Your task to perform on an android device: Open calendar and show me the first week of next month Image 0: 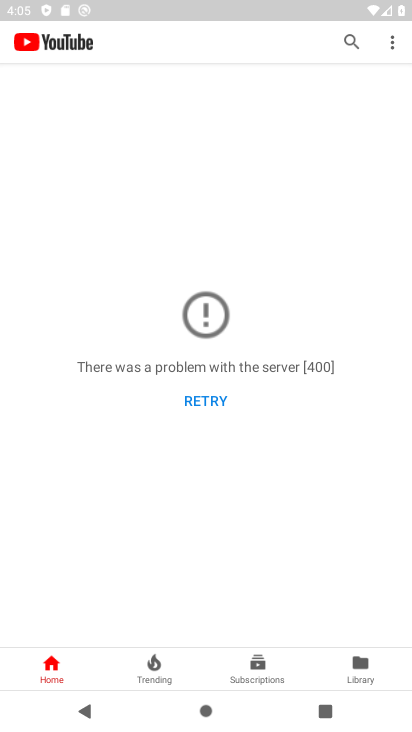
Step 0: press back button
Your task to perform on an android device: Open calendar and show me the first week of next month Image 1: 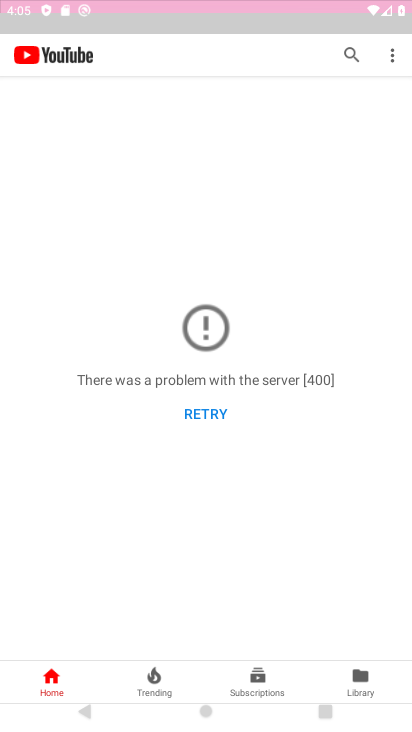
Step 1: press back button
Your task to perform on an android device: Open calendar and show me the first week of next month Image 2: 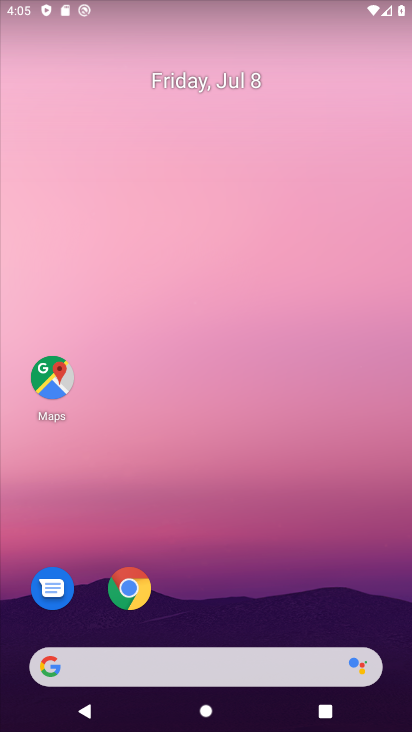
Step 2: drag from (320, 547) to (298, 120)
Your task to perform on an android device: Open calendar and show me the first week of next month Image 3: 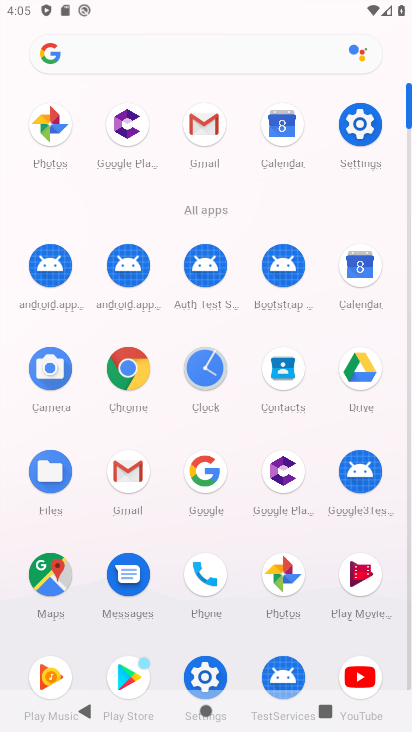
Step 3: click (372, 271)
Your task to perform on an android device: Open calendar and show me the first week of next month Image 4: 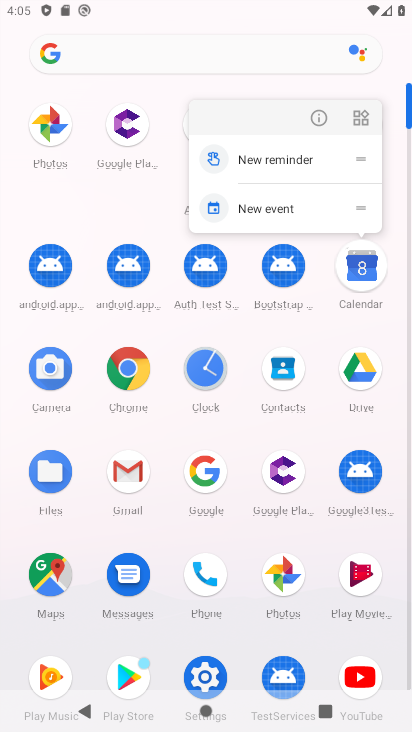
Step 4: click (368, 273)
Your task to perform on an android device: Open calendar and show me the first week of next month Image 5: 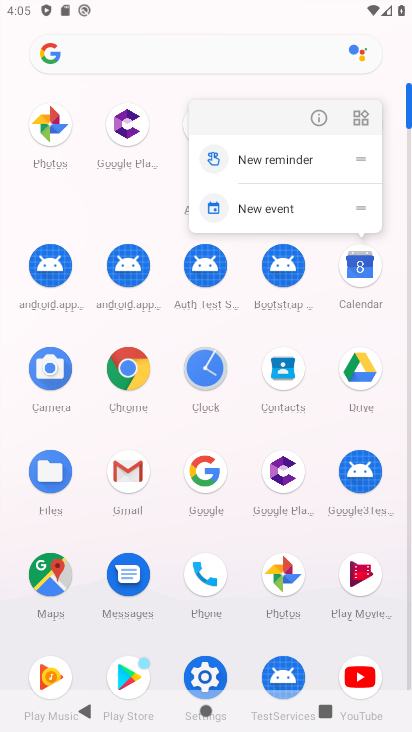
Step 5: click (368, 274)
Your task to perform on an android device: Open calendar and show me the first week of next month Image 6: 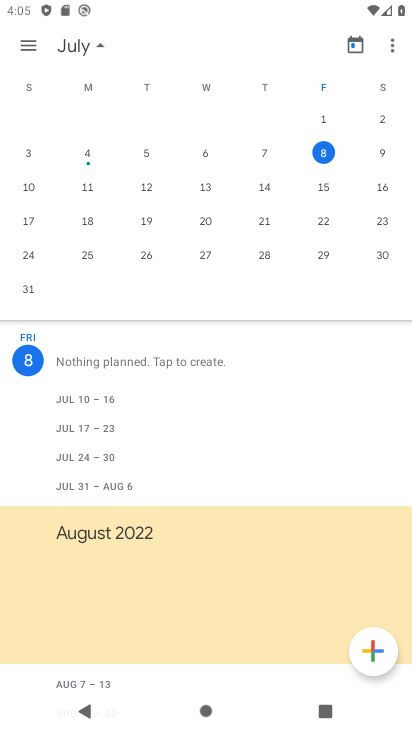
Step 6: click (364, 271)
Your task to perform on an android device: Open calendar and show me the first week of next month Image 7: 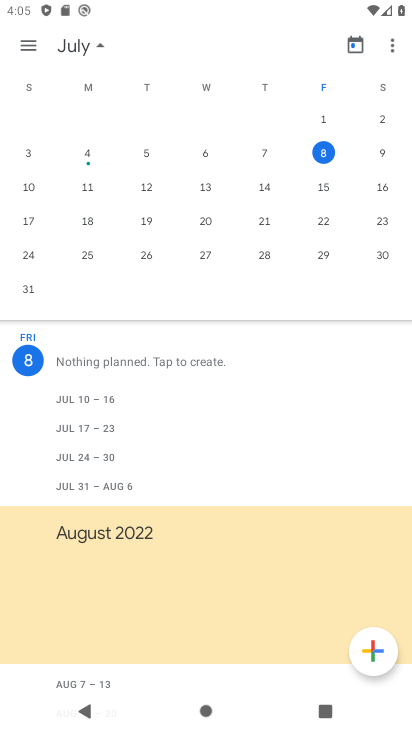
Step 7: drag from (128, 579) to (133, 545)
Your task to perform on an android device: Open calendar and show me the first week of next month Image 8: 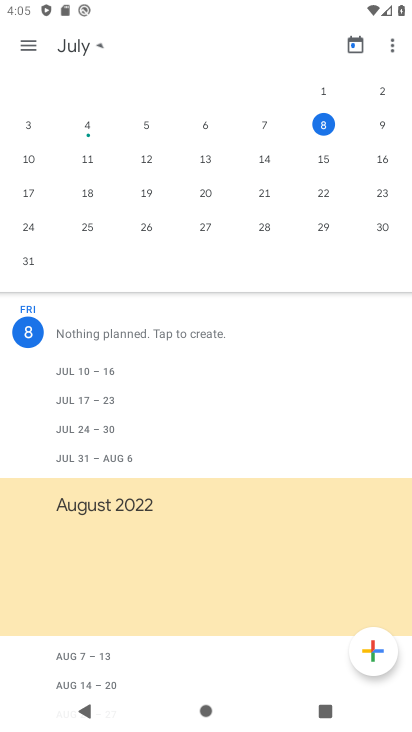
Step 8: click (131, 550)
Your task to perform on an android device: Open calendar and show me the first week of next month Image 9: 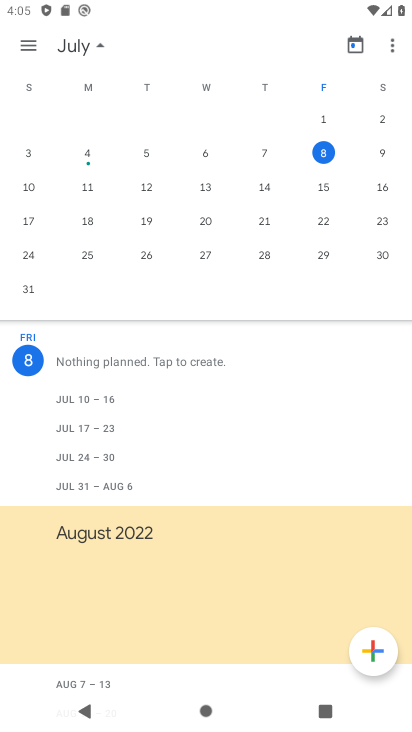
Step 9: click (128, 554)
Your task to perform on an android device: Open calendar and show me the first week of next month Image 10: 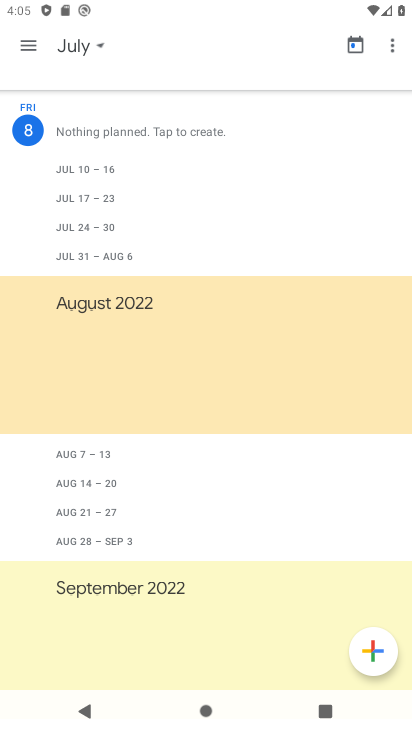
Step 10: click (128, 554)
Your task to perform on an android device: Open calendar and show me the first week of next month Image 11: 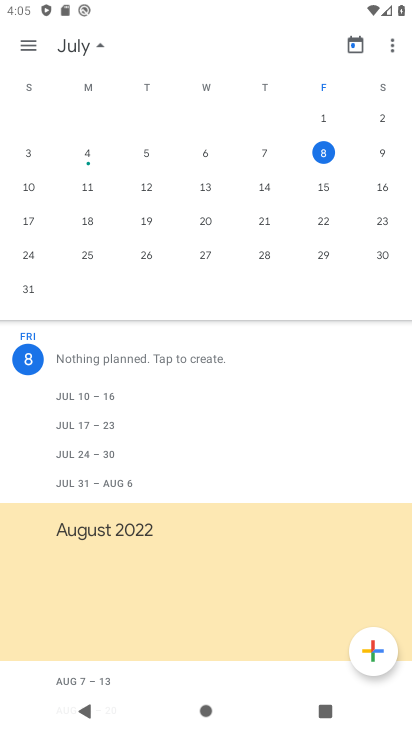
Step 11: drag from (116, 591) to (237, 109)
Your task to perform on an android device: Open calendar and show me the first week of next month Image 12: 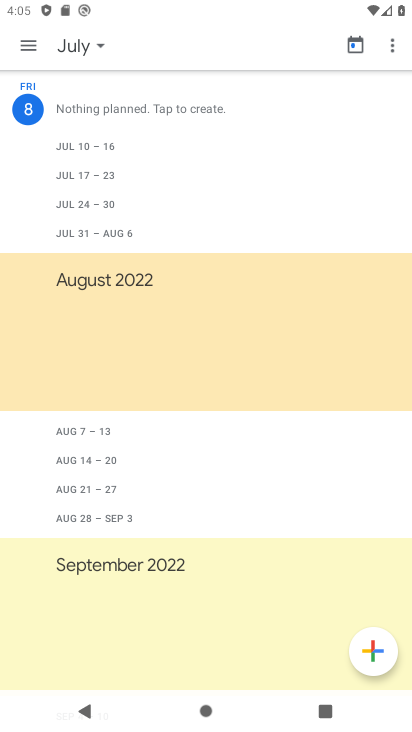
Step 12: click (94, 549)
Your task to perform on an android device: Open calendar and show me the first week of next month Image 13: 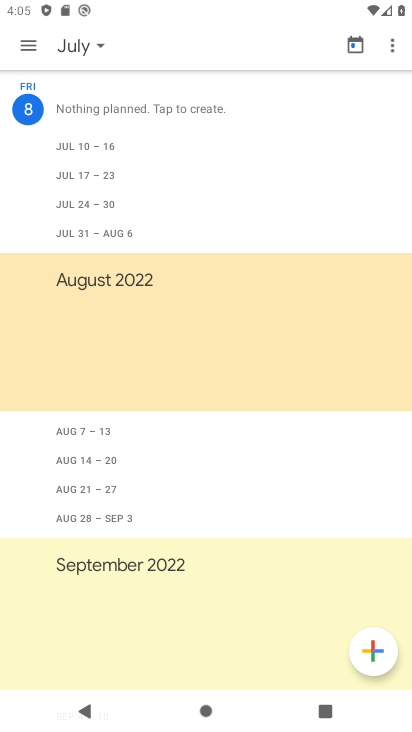
Step 13: click (111, 435)
Your task to perform on an android device: Open calendar and show me the first week of next month Image 14: 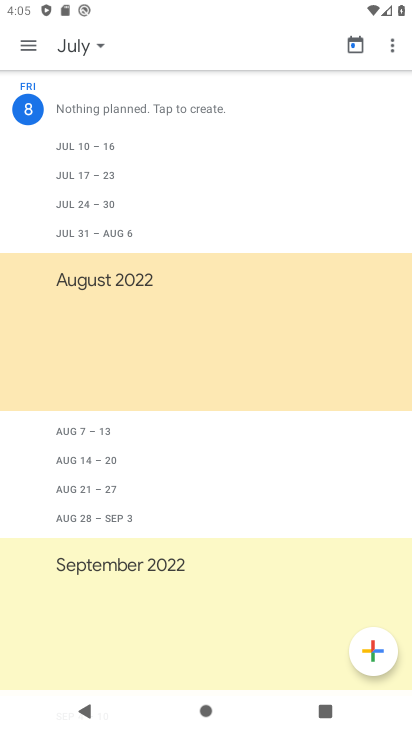
Step 14: click (108, 434)
Your task to perform on an android device: Open calendar and show me the first week of next month Image 15: 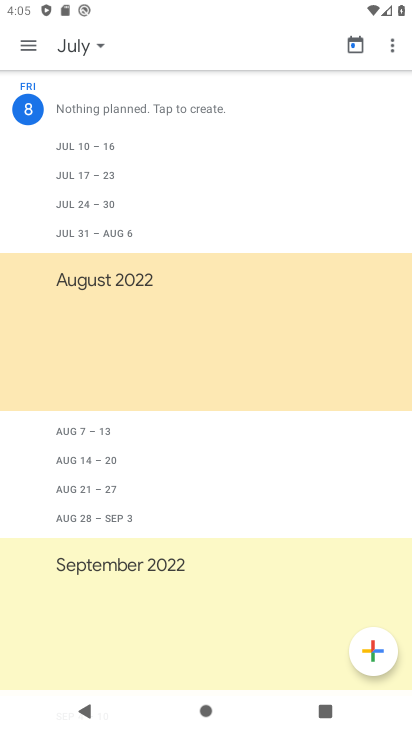
Step 15: click (101, 436)
Your task to perform on an android device: Open calendar and show me the first week of next month Image 16: 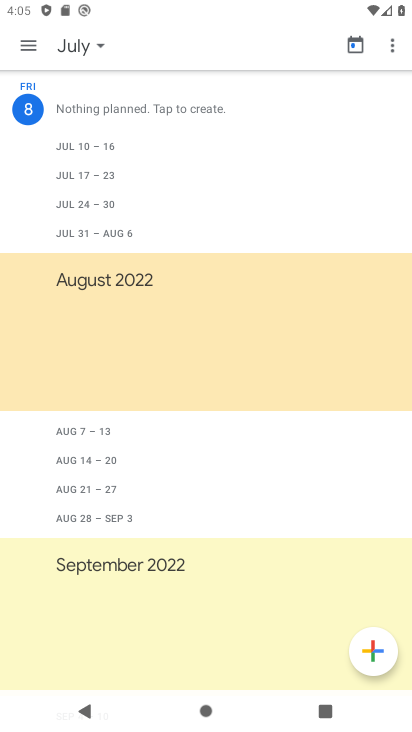
Step 16: click (81, 430)
Your task to perform on an android device: Open calendar and show me the first week of next month Image 17: 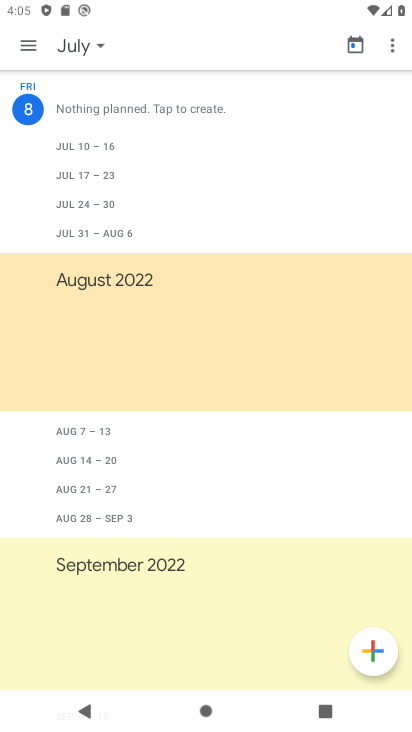
Step 17: click (80, 430)
Your task to perform on an android device: Open calendar and show me the first week of next month Image 18: 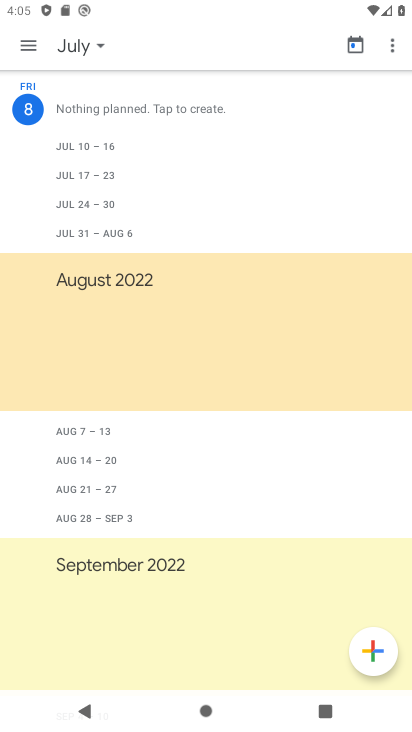
Step 18: click (79, 429)
Your task to perform on an android device: Open calendar and show me the first week of next month Image 19: 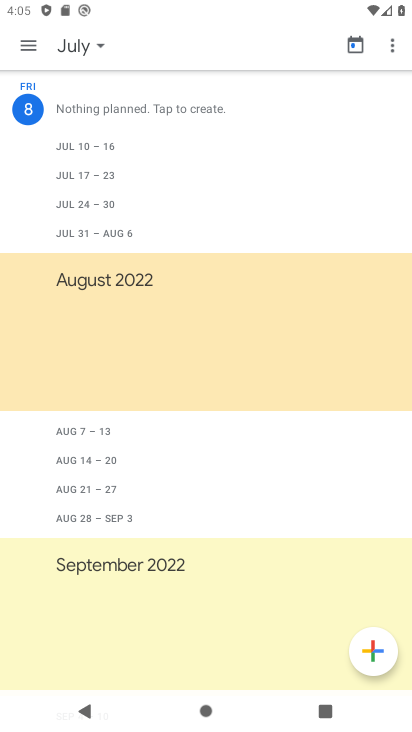
Step 19: click (79, 429)
Your task to perform on an android device: Open calendar and show me the first week of next month Image 20: 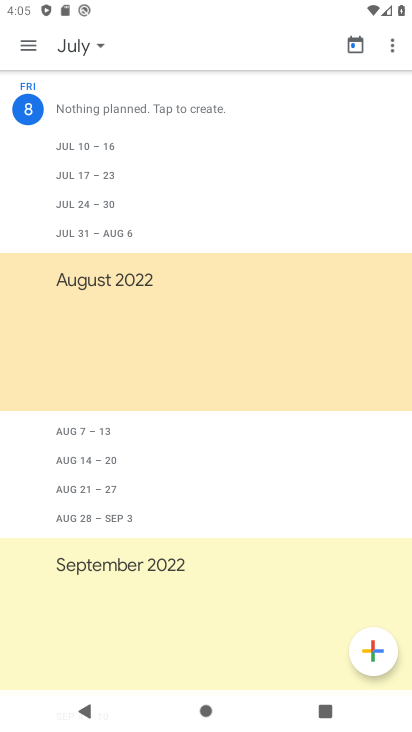
Step 20: click (75, 425)
Your task to perform on an android device: Open calendar and show me the first week of next month Image 21: 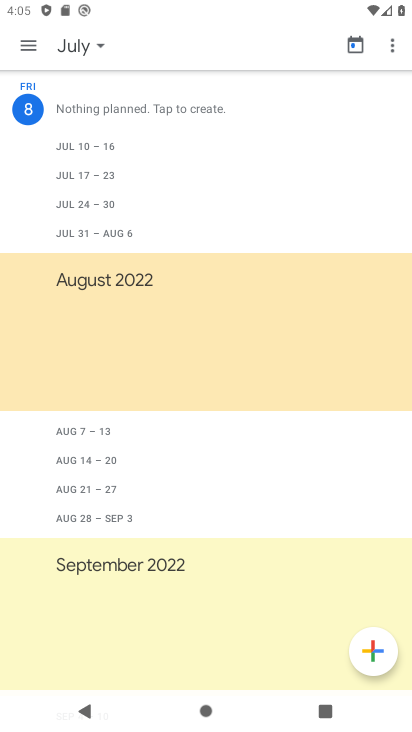
Step 21: click (78, 419)
Your task to perform on an android device: Open calendar and show me the first week of next month Image 22: 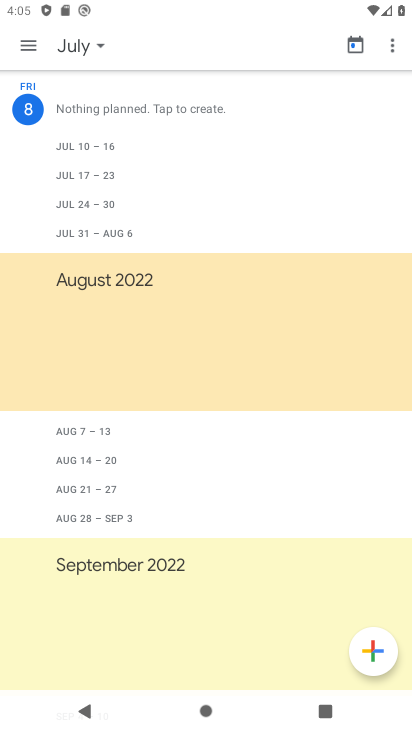
Step 22: click (78, 419)
Your task to perform on an android device: Open calendar and show me the first week of next month Image 23: 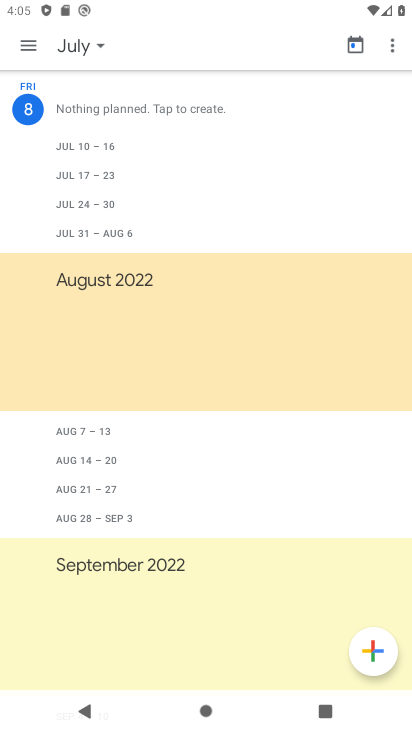
Step 23: click (80, 417)
Your task to perform on an android device: Open calendar and show me the first week of next month Image 24: 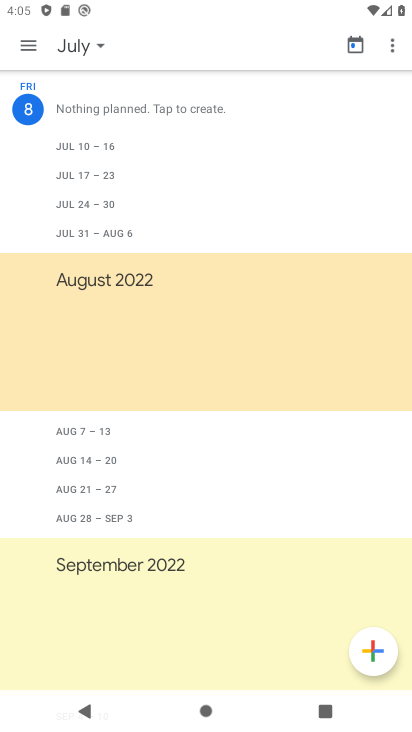
Step 24: click (80, 419)
Your task to perform on an android device: Open calendar and show me the first week of next month Image 25: 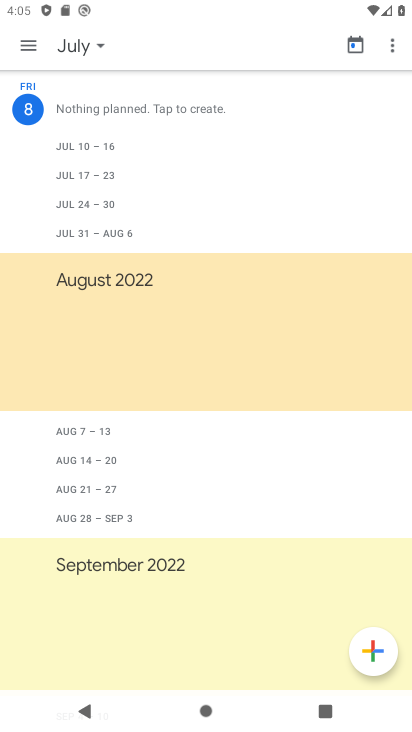
Step 25: click (80, 419)
Your task to perform on an android device: Open calendar and show me the first week of next month Image 26: 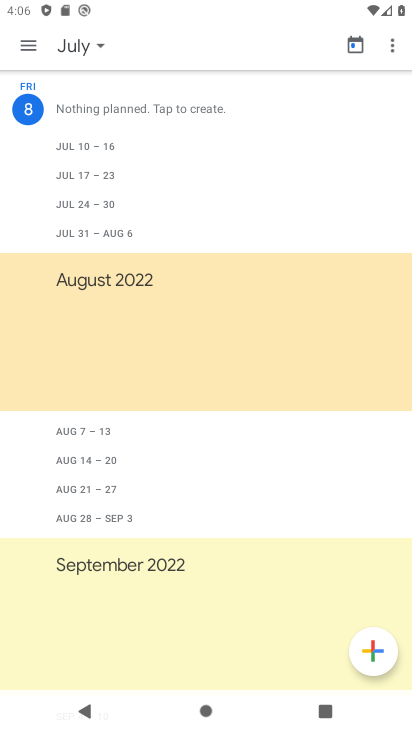
Step 26: task complete